Your task to perform on an android device: open the mobile data screen to see how much data has been used Image 0: 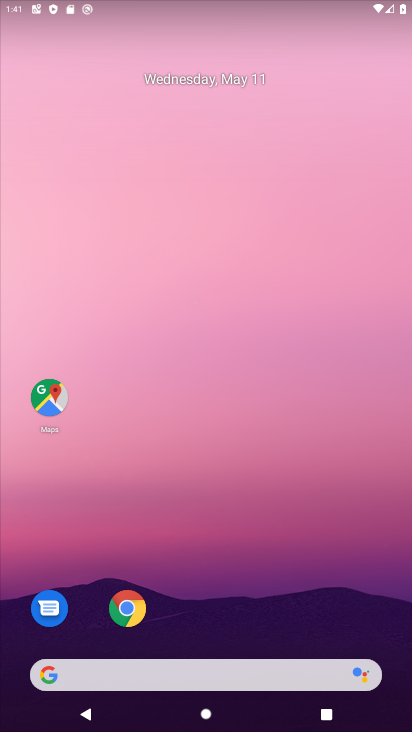
Step 0: drag from (248, 614) to (260, 213)
Your task to perform on an android device: open the mobile data screen to see how much data has been used Image 1: 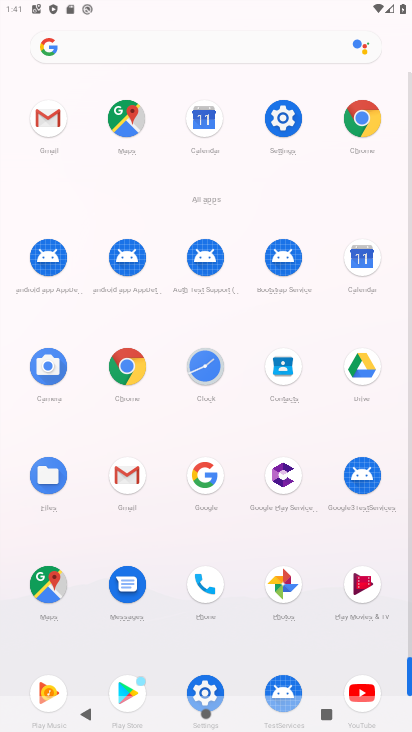
Step 1: click (281, 115)
Your task to perform on an android device: open the mobile data screen to see how much data has been used Image 2: 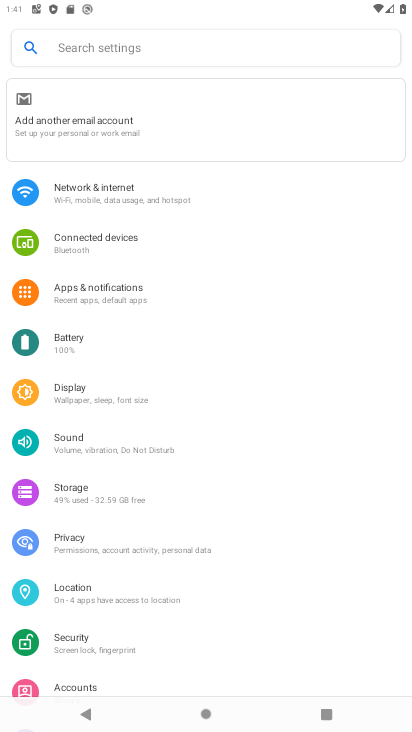
Step 2: click (72, 195)
Your task to perform on an android device: open the mobile data screen to see how much data has been used Image 3: 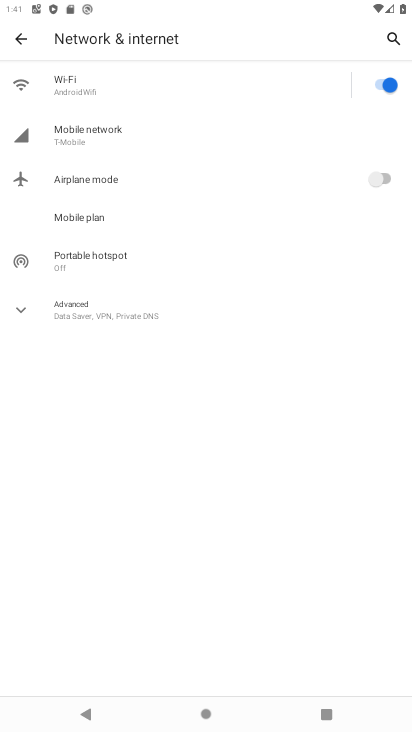
Step 3: click (136, 140)
Your task to perform on an android device: open the mobile data screen to see how much data has been used Image 4: 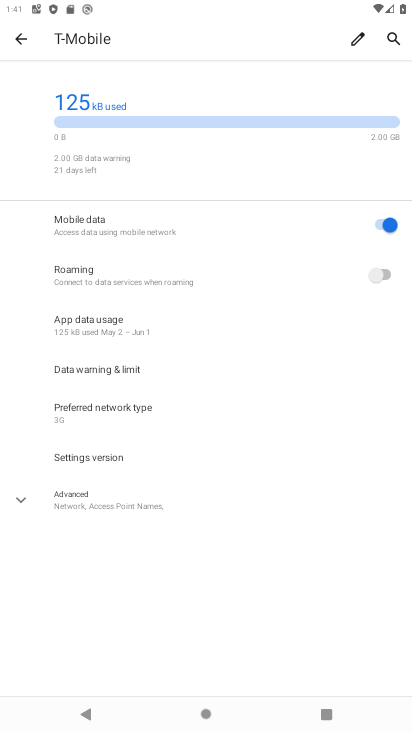
Step 4: task complete